Your task to perform on an android device: Open privacy settings Image 0: 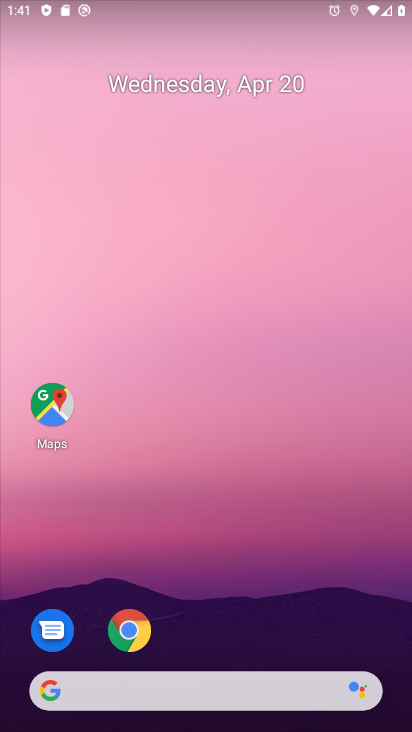
Step 0: click (133, 613)
Your task to perform on an android device: Open privacy settings Image 1: 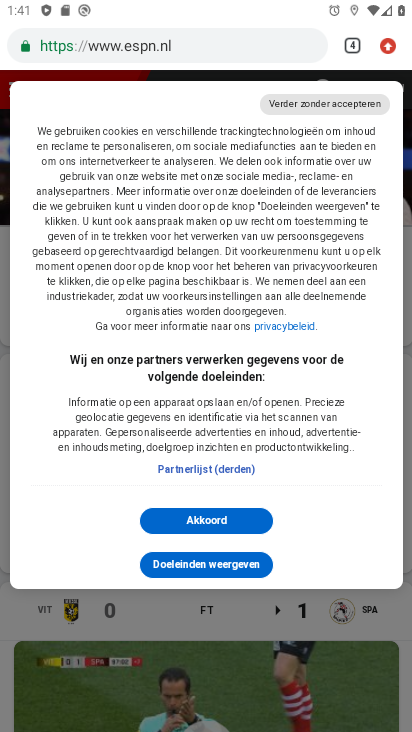
Step 1: drag from (392, 46) to (243, 599)
Your task to perform on an android device: Open privacy settings Image 2: 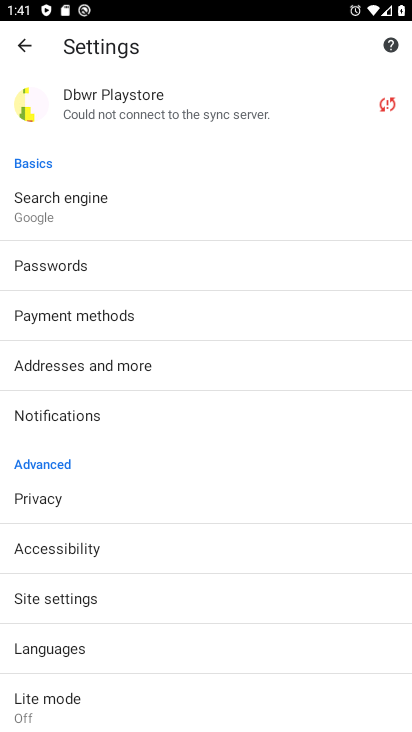
Step 2: click (32, 499)
Your task to perform on an android device: Open privacy settings Image 3: 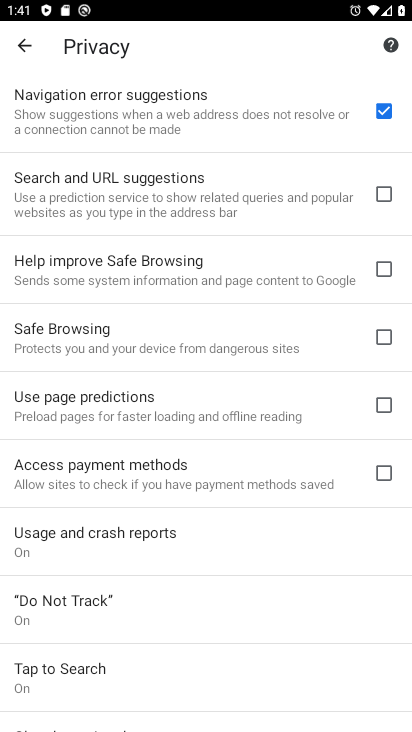
Step 3: task complete